Your task to perform on an android device: read, delete, or share a saved page in the chrome app Image 0: 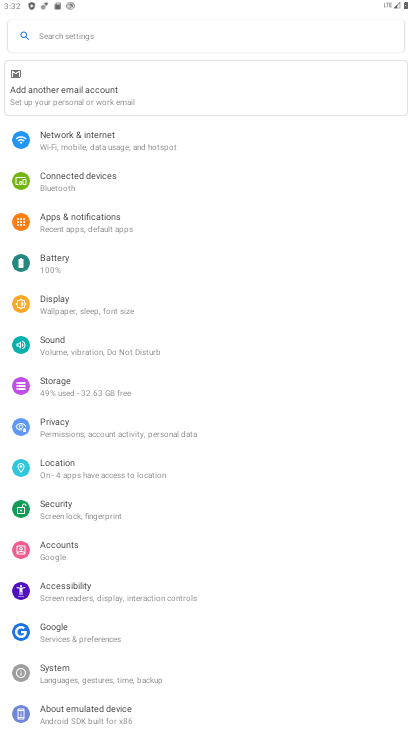
Step 0: press home button
Your task to perform on an android device: read, delete, or share a saved page in the chrome app Image 1: 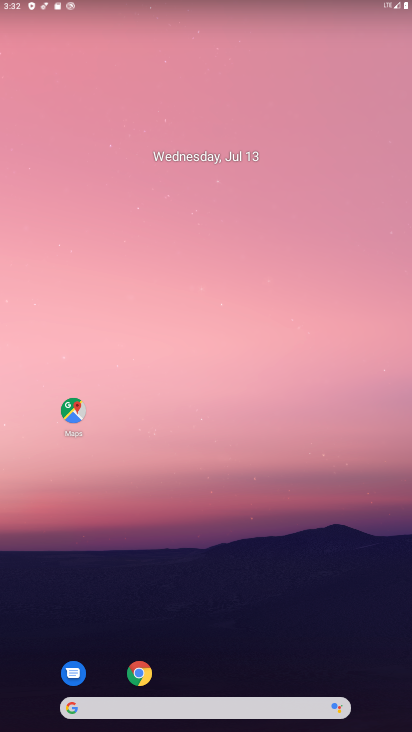
Step 1: click (138, 672)
Your task to perform on an android device: read, delete, or share a saved page in the chrome app Image 2: 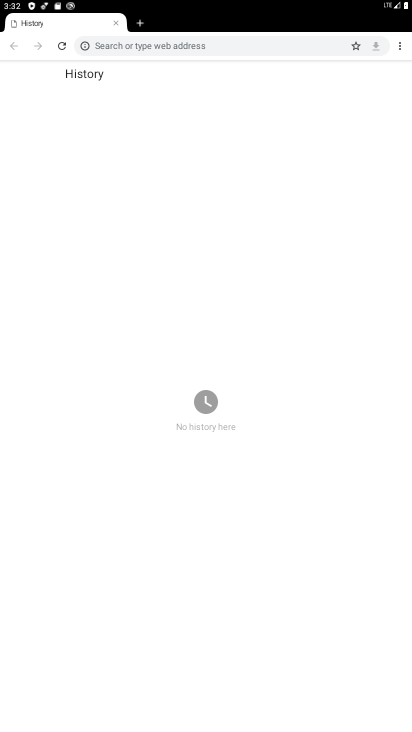
Step 2: click (399, 45)
Your task to perform on an android device: read, delete, or share a saved page in the chrome app Image 3: 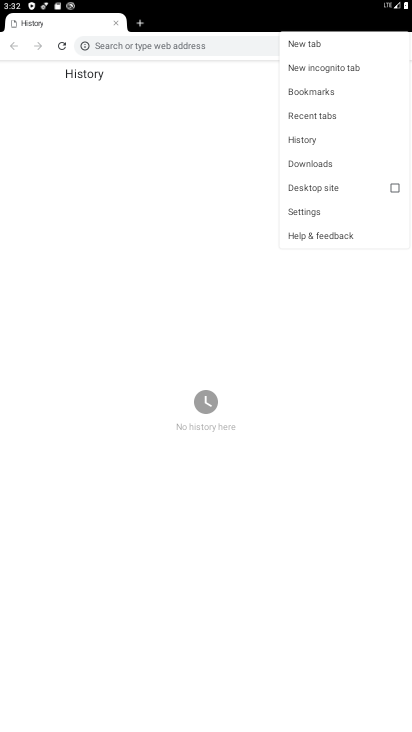
Step 3: click (322, 159)
Your task to perform on an android device: read, delete, or share a saved page in the chrome app Image 4: 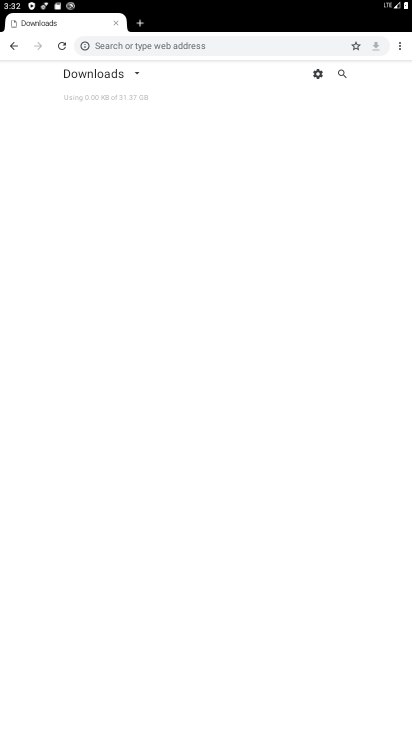
Step 4: click (131, 68)
Your task to perform on an android device: read, delete, or share a saved page in the chrome app Image 5: 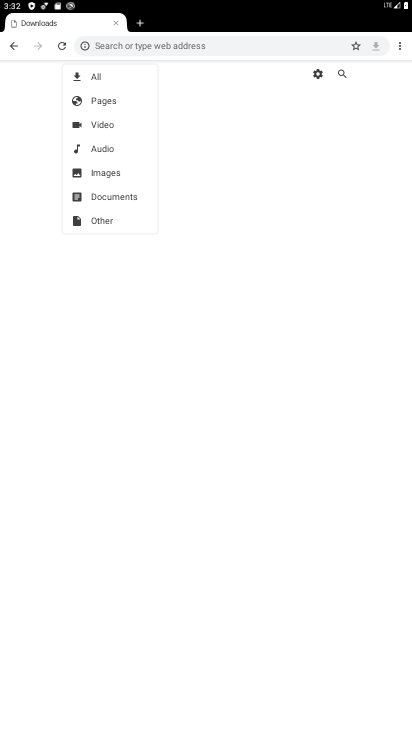
Step 5: click (107, 110)
Your task to perform on an android device: read, delete, or share a saved page in the chrome app Image 6: 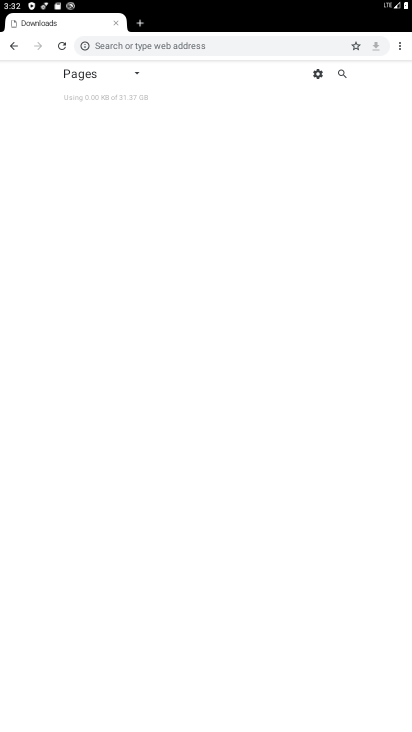
Step 6: click (136, 75)
Your task to perform on an android device: read, delete, or share a saved page in the chrome app Image 7: 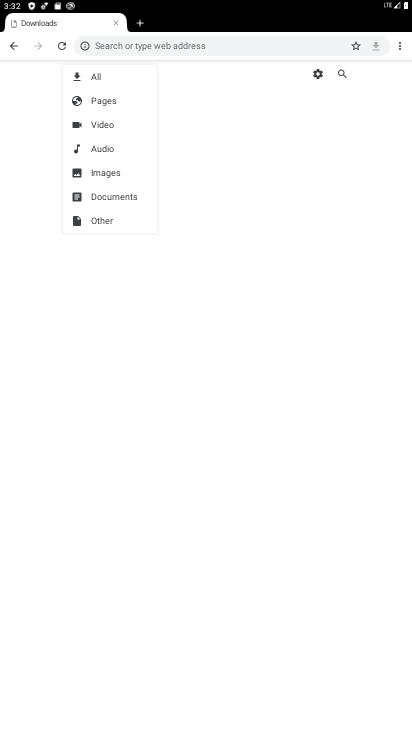
Step 7: click (109, 121)
Your task to perform on an android device: read, delete, or share a saved page in the chrome app Image 8: 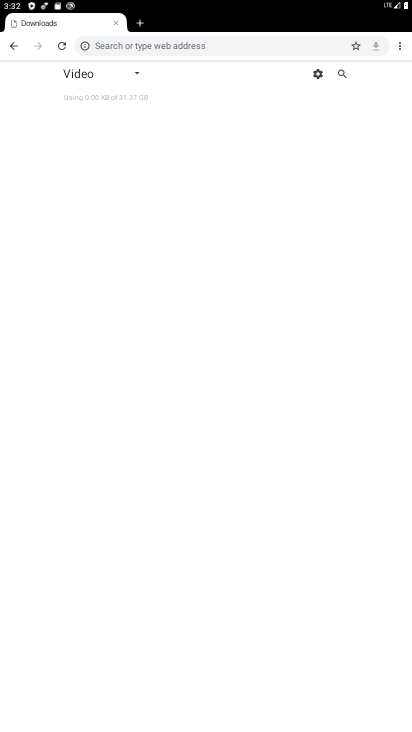
Step 8: click (83, 73)
Your task to perform on an android device: read, delete, or share a saved page in the chrome app Image 9: 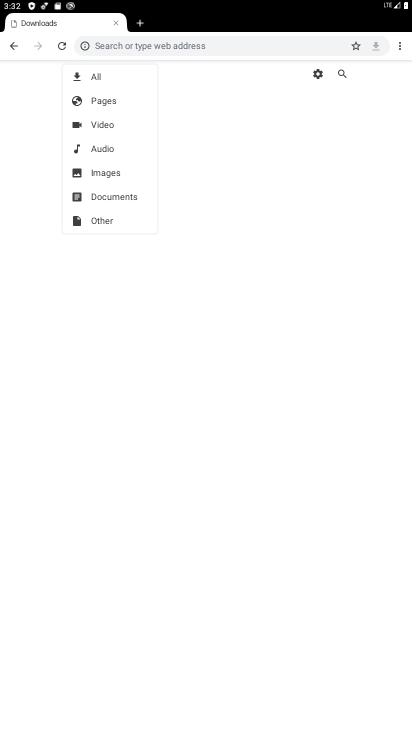
Step 9: click (97, 219)
Your task to perform on an android device: read, delete, or share a saved page in the chrome app Image 10: 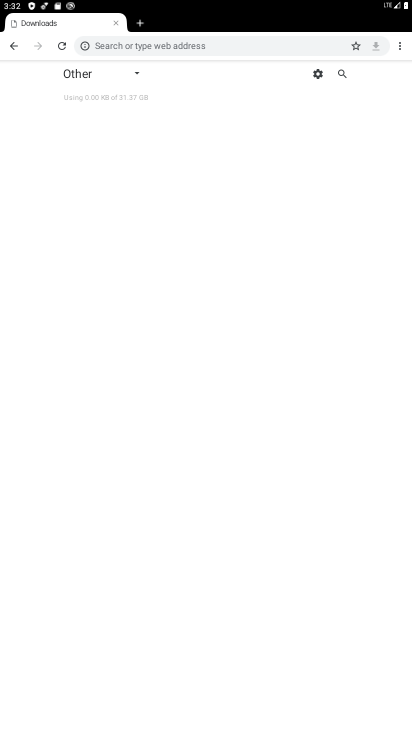
Step 10: task complete